Your task to perform on an android device: Go to display settings Image 0: 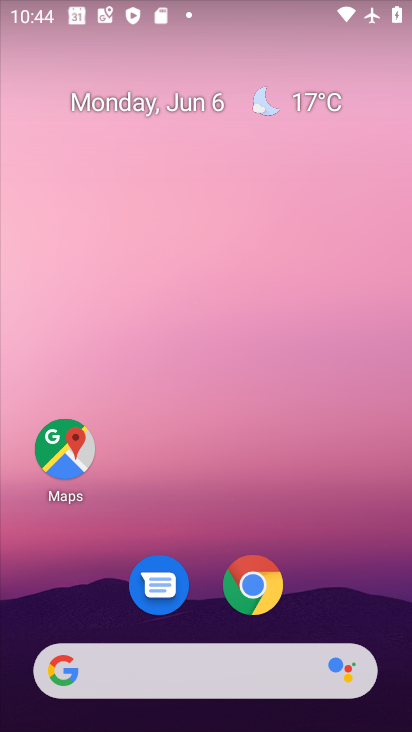
Step 0: drag from (270, 418) to (274, 14)
Your task to perform on an android device: Go to display settings Image 1: 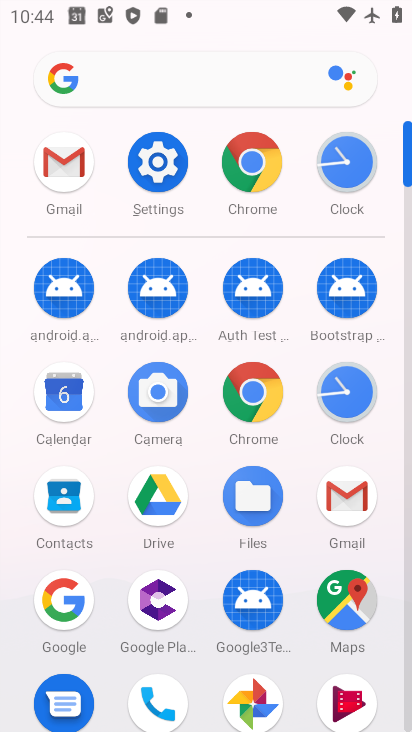
Step 1: click (164, 152)
Your task to perform on an android device: Go to display settings Image 2: 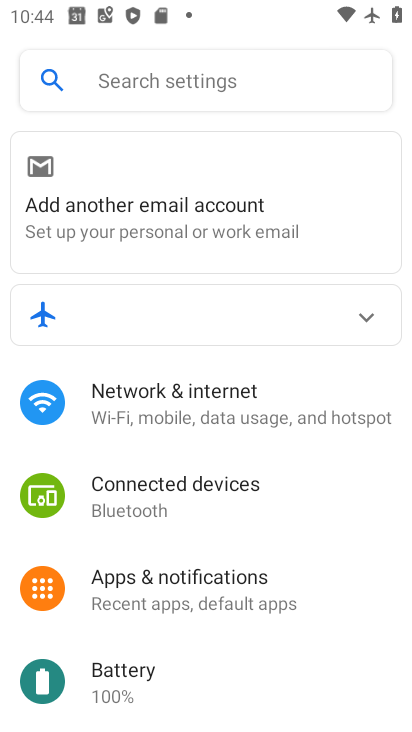
Step 2: drag from (206, 549) to (266, 64)
Your task to perform on an android device: Go to display settings Image 3: 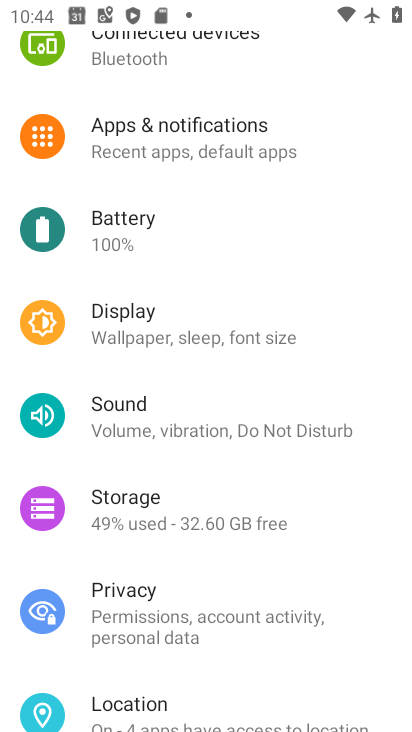
Step 3: click (206, 326)
Your task to perform on an android device: Go to display settings Image 4: 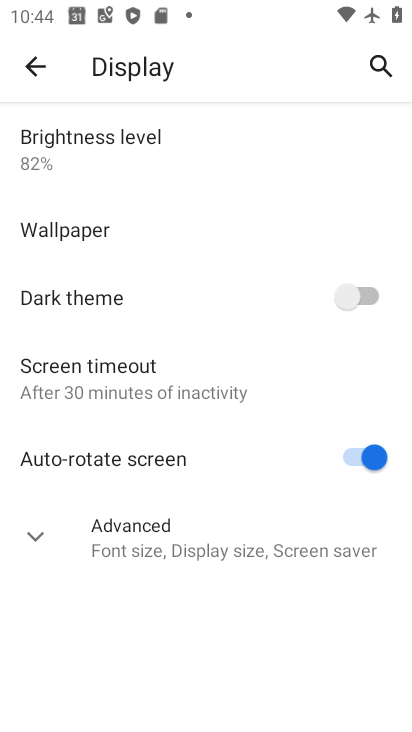
Step 4: task complete